Your task to perform on an android device: remove spam from my inbox in the gmail app Image 0: 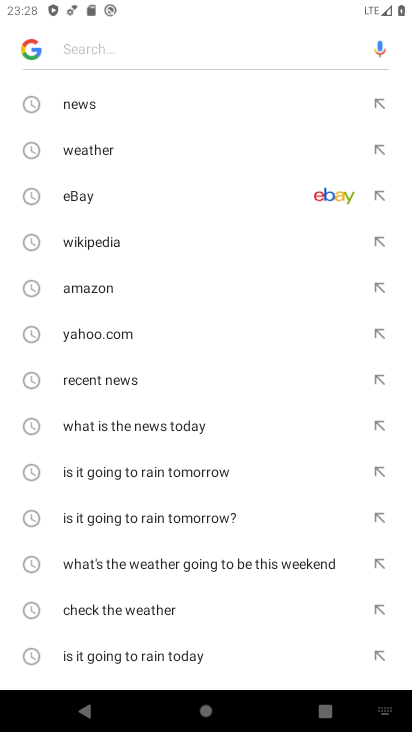
Step 0: press home button
Your task to perform on an android device: remove spam from my inbox in the gmail app Image 1: 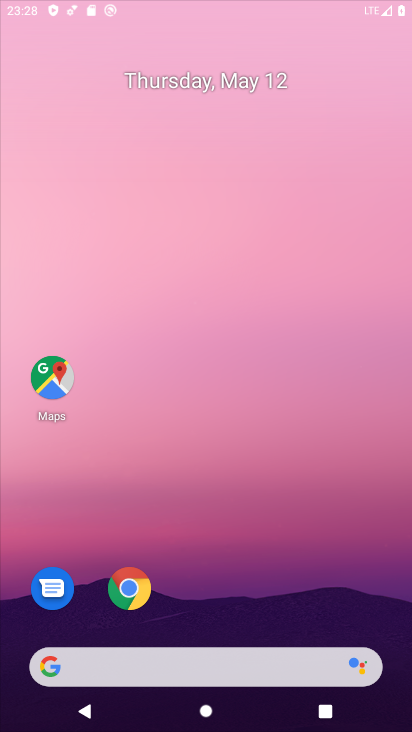
Step 1: drag from (184, 342) to (211, 119)
Your task to perform on an android device: remove spam from my inbox in the gmail app Image 2: 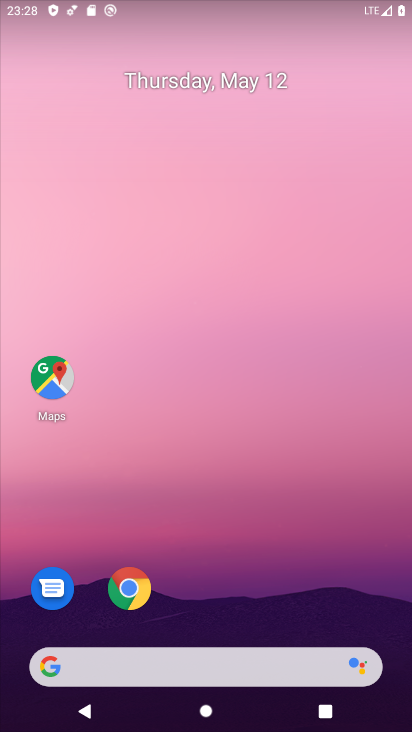
Step 2: drag from (187, 643) to (251, 2)
Your task to perform on an android device: remove spam from my inbox in the gmail app Image 3: 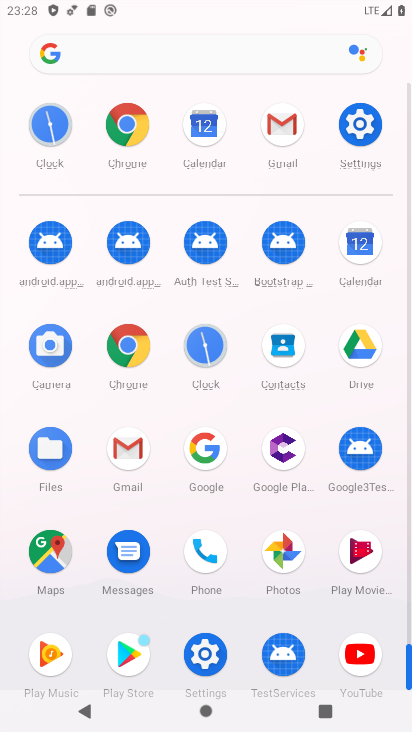
Step 3: click (135, 456)
Your task to perform on an android device: remove spam from my inbox in the gmail app Image 4: 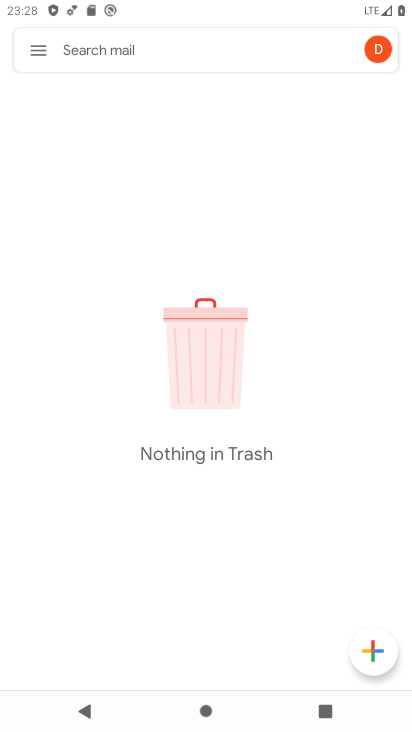
Step 4: click (30, 42)
Your task to perform on an android device: remove spam from my inbox in the gmail app Image 5: 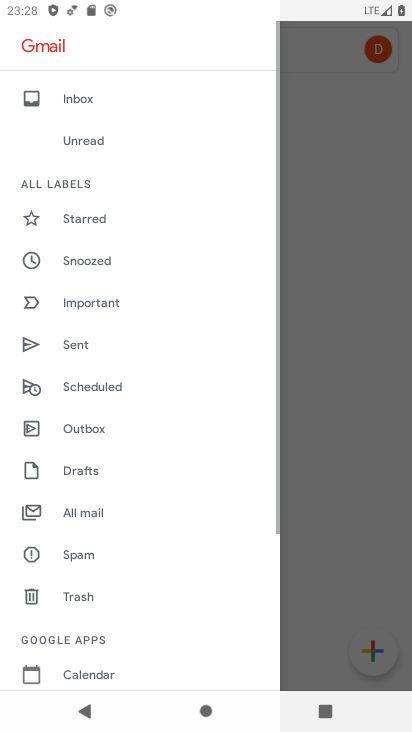
Step 5: drag from (127, 606) to (164, 206)
Your task to perform on an android device: remove spam from my inbox in the gmail app Image 6: 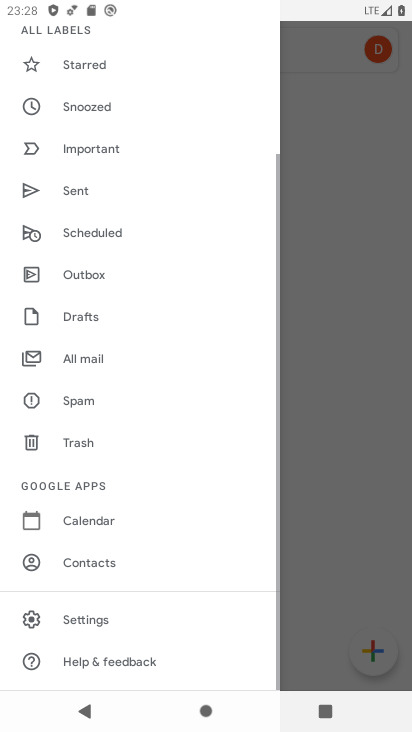
Step 6: click (108, 624)
Your task to perform on an android device: remove spam from my inbox in the gmail app Image 7: 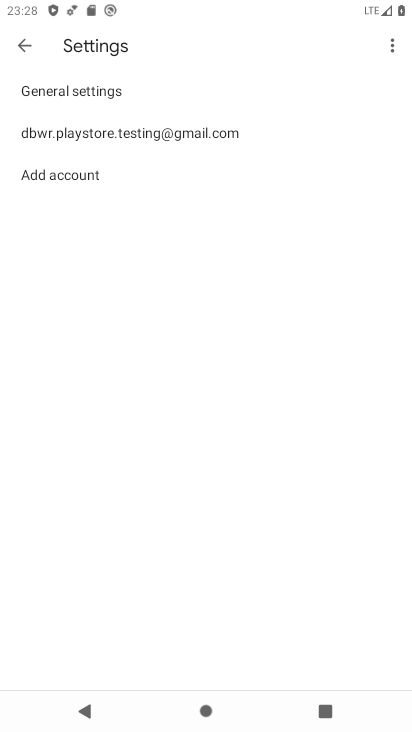
Step 7: click (22, 41)
Your task to perform on an android device: remove spam from my inbox in the gmail app Image 8: 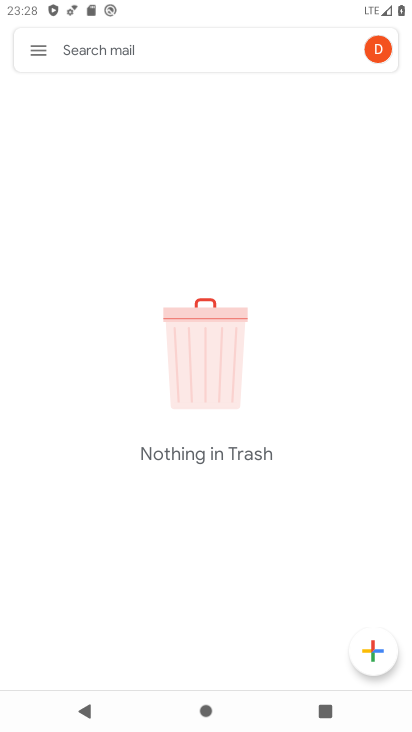
Step 8: click (35, 53)
Your task to perform on an android device: remove spam from my inbox in the gmail app Image 9: 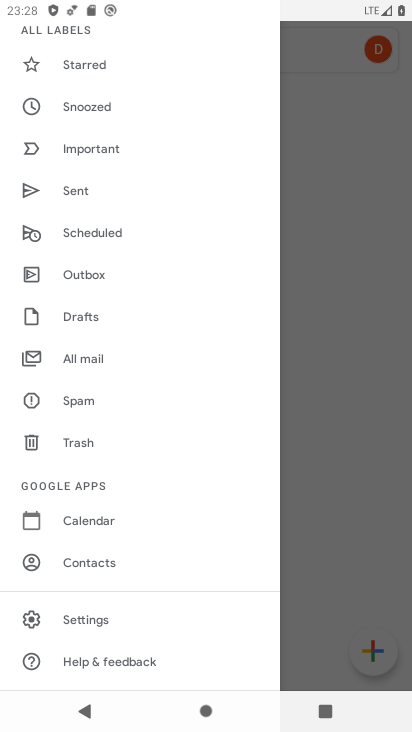
Step 9: click (87, 395)
Your task to perform on an android device: remove spam from my inbox in the gmail app Image 10: 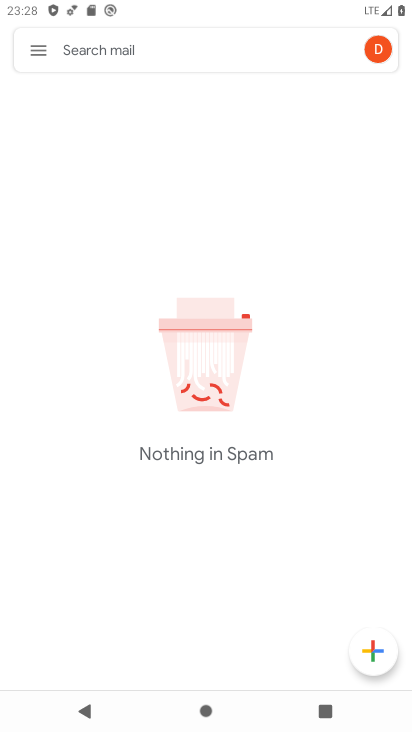
Step 10: task complete